Your task to perform on an android device: Go to sound settings Image 0: 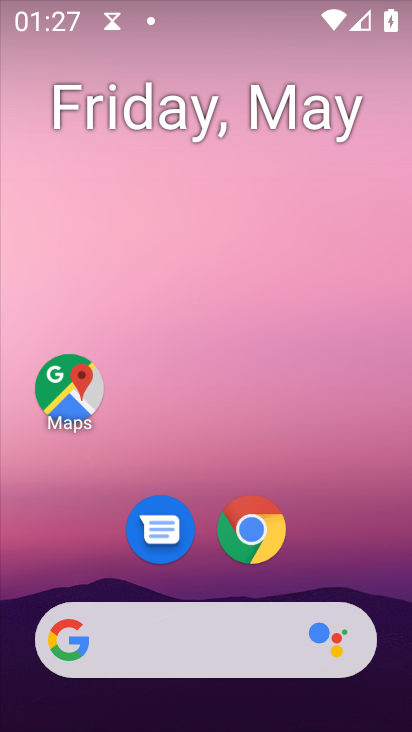
Step 0: drag from (290, 518) to (267, 165)
Your task to perform on an android device: Go to sound settings Image 1: 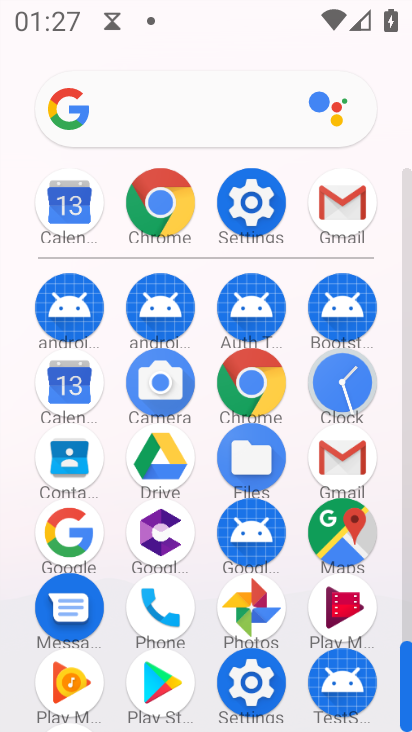
Step 1: click (239, 194)
Your task to perform on an android device: Go to sound settings Image 2: 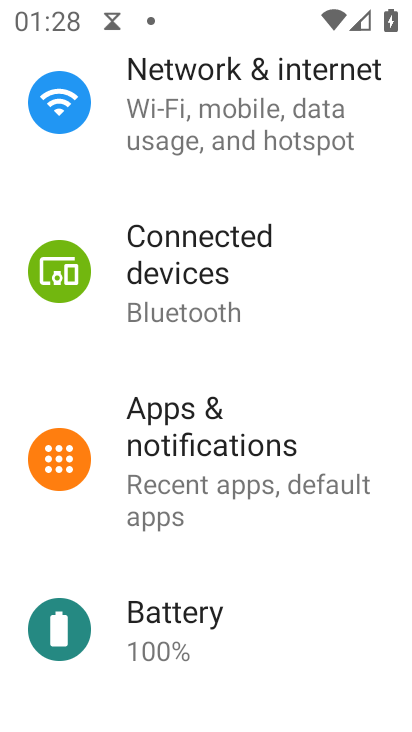
Step 2: task complete